Your task to perform on an android device: Go to eBay Image 0: 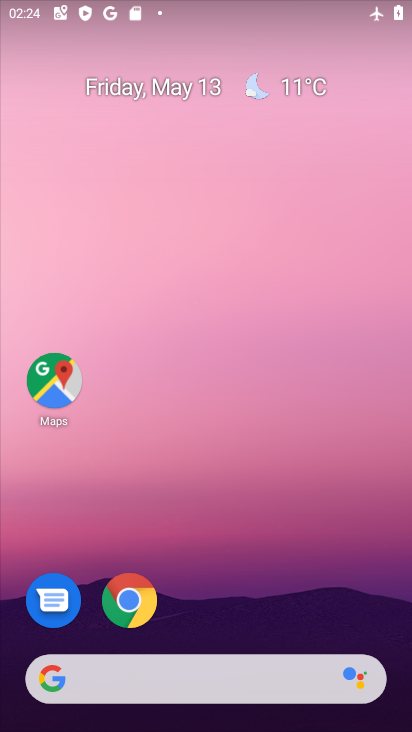
Step 0: click (380, 639)
Your task to perform on an android device: Go to eBay Image 1: 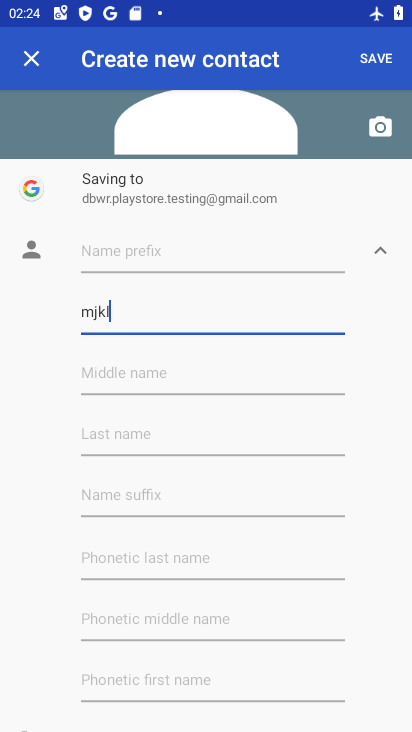
Step 1: drag from (389, 5) to (288, 592)
Your task to perform on an android device: Go to eBay Image 2: 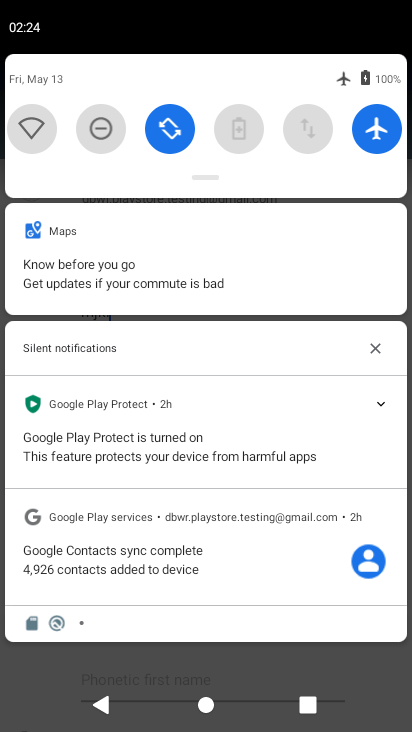
Step 2: click (379, 127)
Your task to perform on an android device: Go to eBay Image 3: 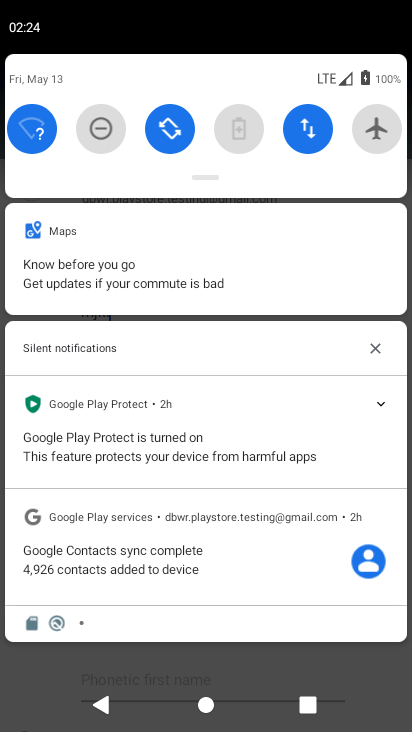
Step 3: press back button
Your task to perform on an android device: Go to eBay Image 4: 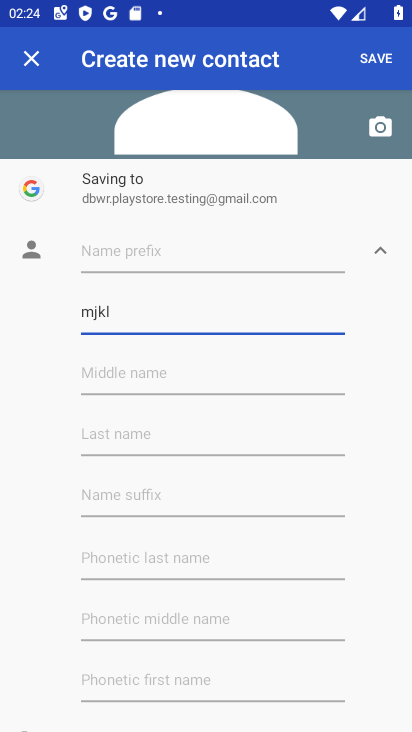
Step 4: press home button
Your task to perform on an android device: Go to eBay Image 5: 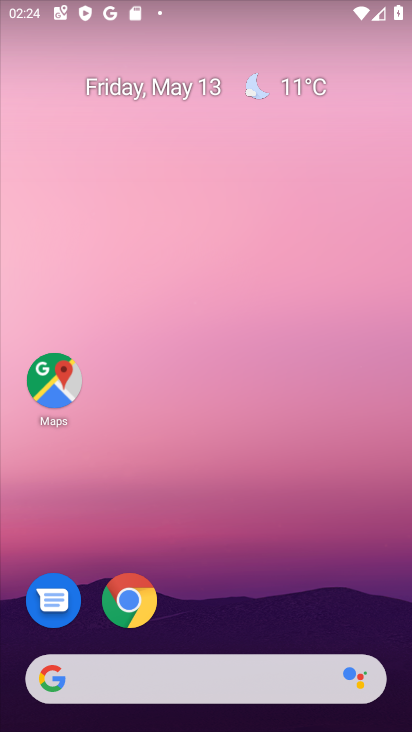
Step 5: drag from (194, 624) to (316, 61)
Your task to perform on an android device: Go to eBay Image 6: 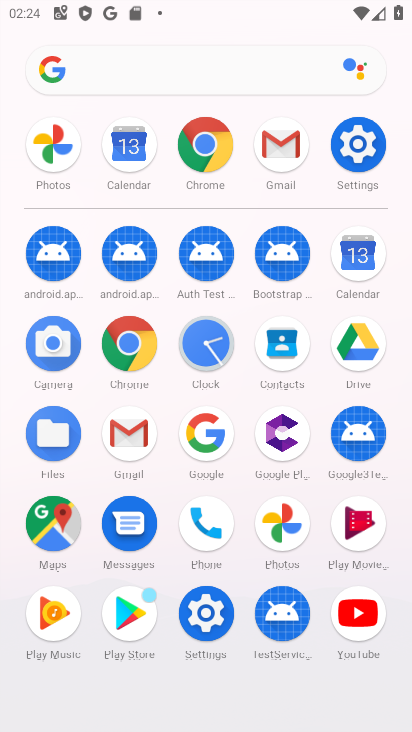
Step 6: click (176, 78)
Your task to perform on an android device: Go to eBay Image 7: 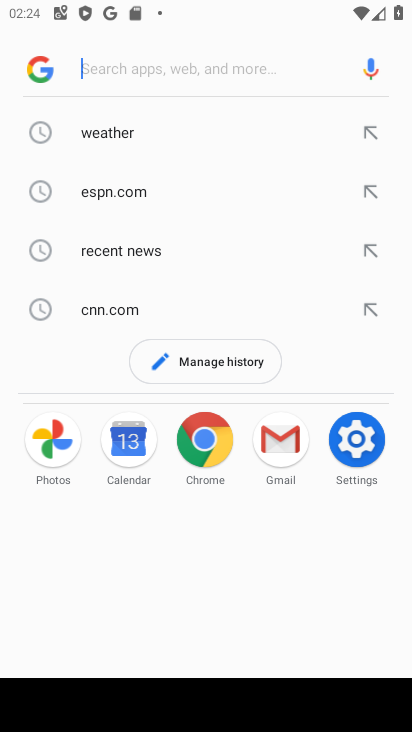
Step 7: type "ebay"
Your task to perform on an android device: Go to eBay Image 8: 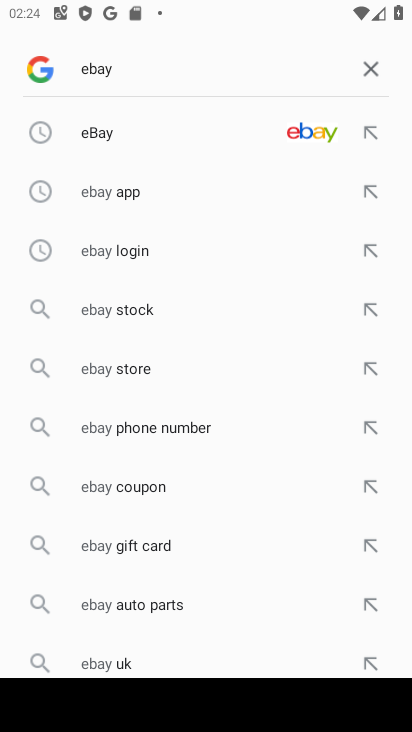
Step 8: click (238, 118)
Your task to perform on an android device: Go to eBay Image 9: 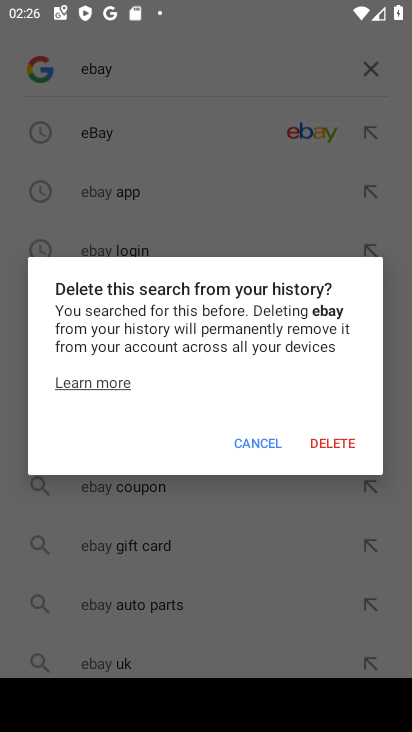
Step 9: click (271, 441)
Your task to perform on an android device: Go to eBay Image 10: 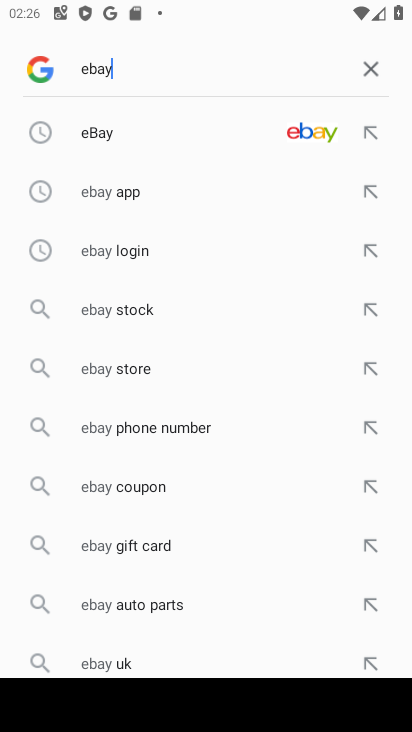
Step 10: click (38, 129)
Your task to perform on an android device: Go to eBay Image 11: 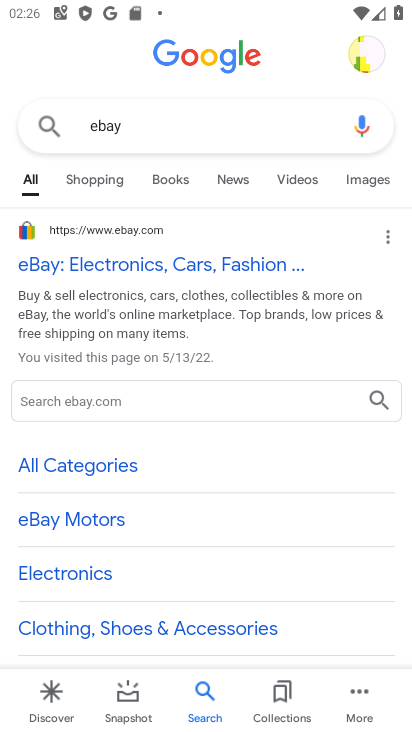
Step 11: click (73, 261)
Your task to perform on an android device: Go to eBay Image 12: 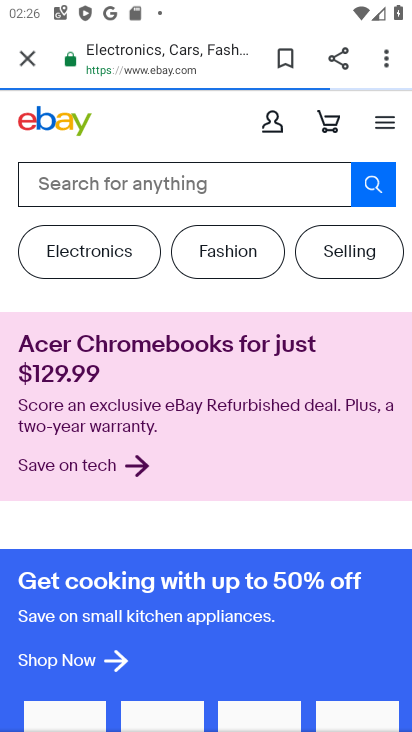
Step 12: task complete